Your task to perform on an android device: Go to internet settings Image 0: 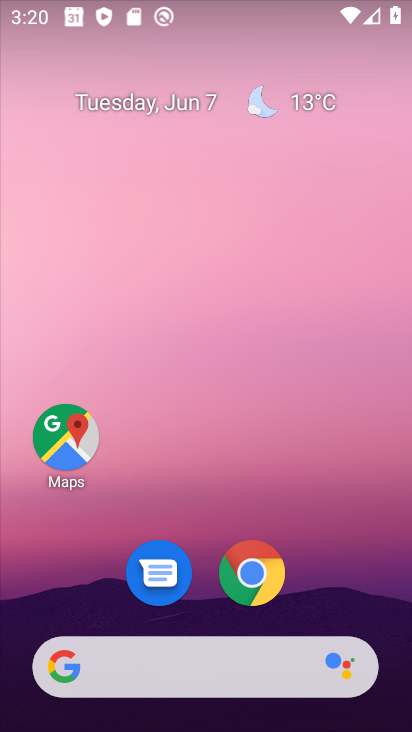
Step 0: drag from (370, 585) to (222, 219)
Your task to perform on an android device: Go to internet settings Image 1: 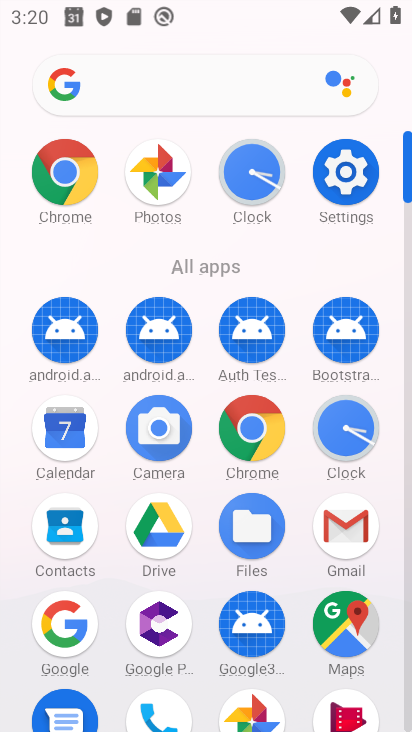
Step 1: click (331, 193)
Your task to perform on an android device: Go to internet settings Image 2: 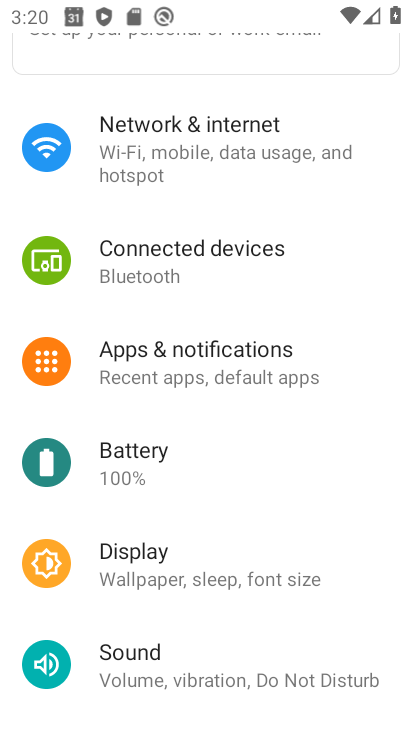
Step 2: click (255, 127)
Your task to perform on an android device: Go to internet settings Image 3: 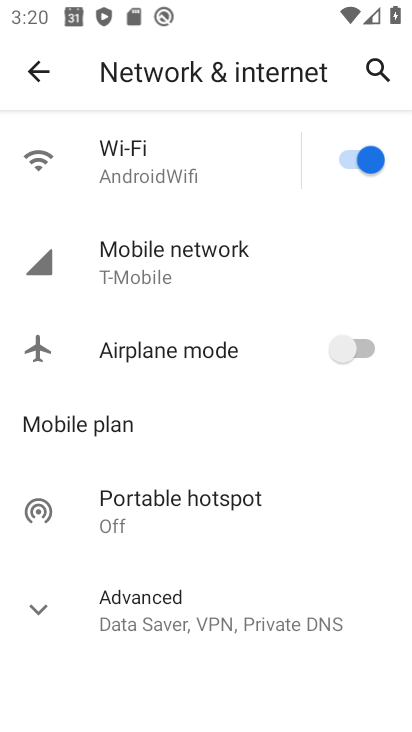
Step 3: task complete